Your task to perform on an android device: change the clock display to digital Image 0: 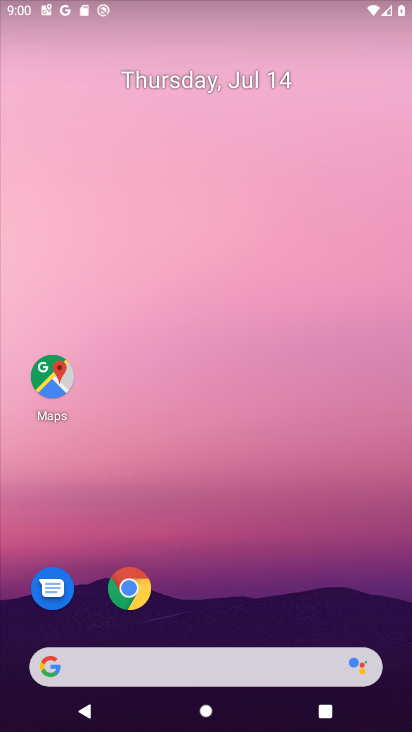
Step 0: click (134, 49)
Your task to perform on an android device: change the clock display to digital Image 1: 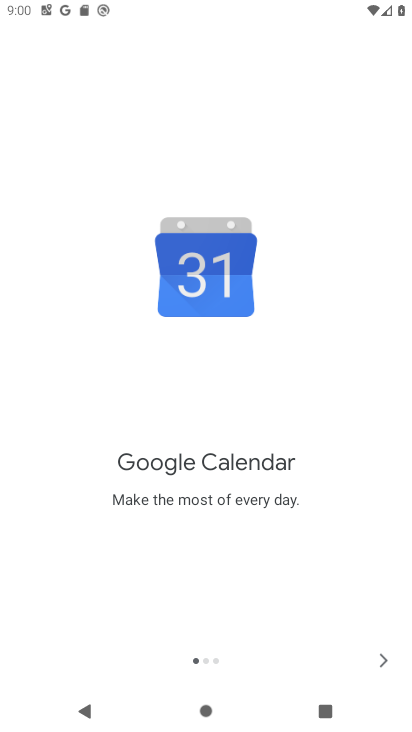
Step 1: press back button
Your task to perform on an android device: change the clock display to digital Image 2: 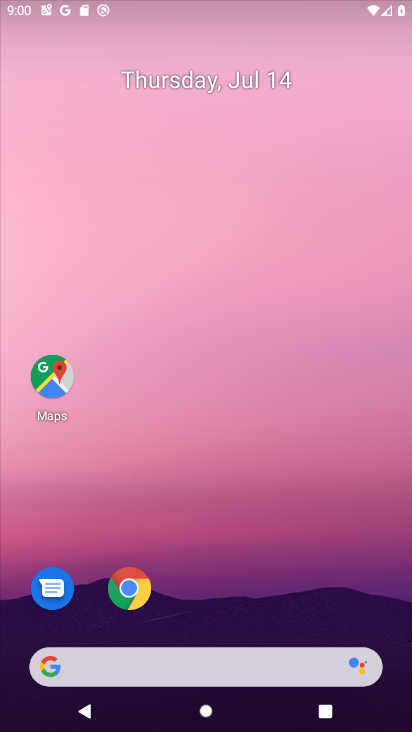
Step 2: drag from (287, 721) to (198, 78)
Your task to perform on an android device: change the clock display to digital Image 3: 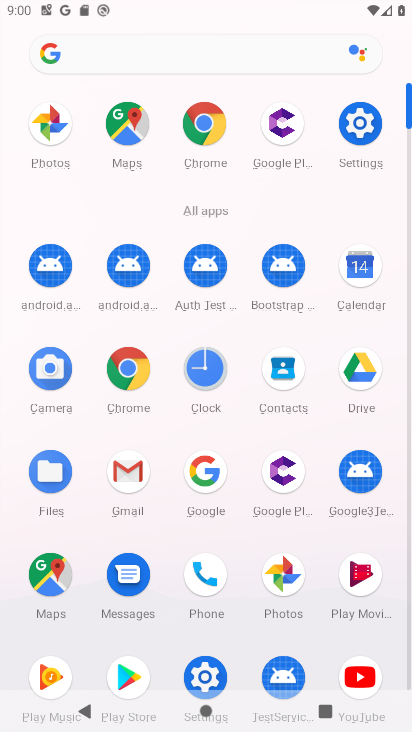
Step 3: click (209, 376)
Your task to perform on an android device: change the clock display to digital Image 4: 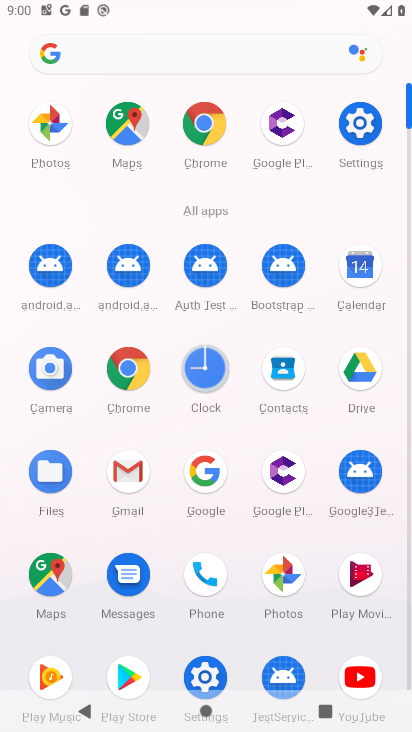
Step 4: click (204, 365)
Your task to perform on an android device: change the clock display to digital Image 5: 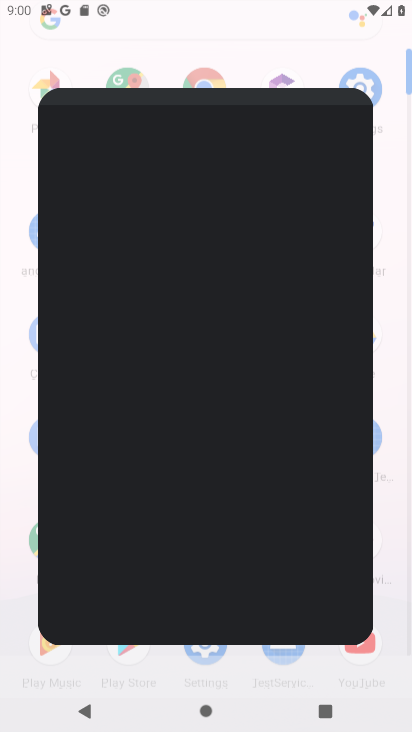
Step 5: click (208, 362)
Your task to perform on an android device: change the clock display to digital Image 6: 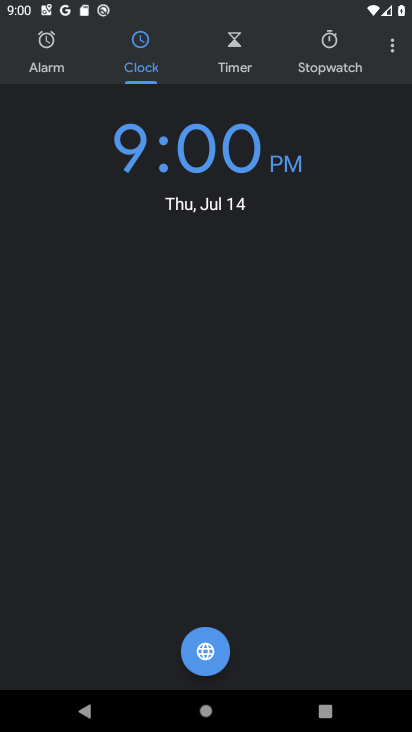
Step 6: click (387, 55)
Your task to perform on an android device: change the clock display to digital Image 7: 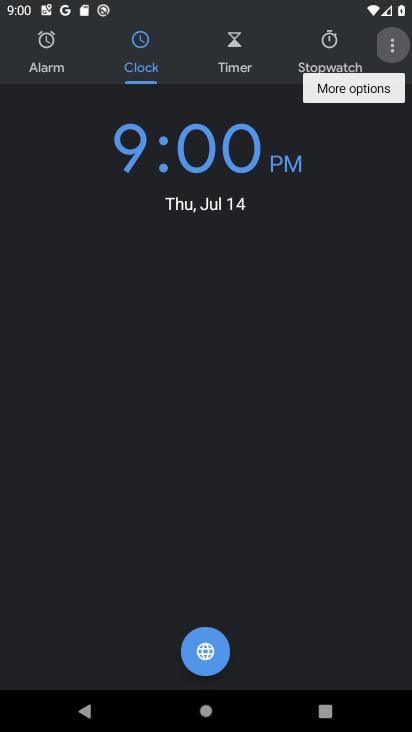
Step 7: click (384, 65)
Your task to perform on an android device: change the clock display to digital Image 8: 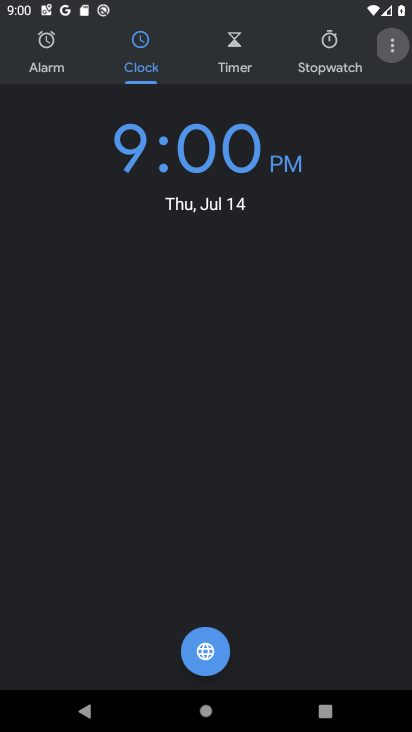
Step 8: click (384, 65)
Your task to perform on an android device: change the clock display to digital Image 9: 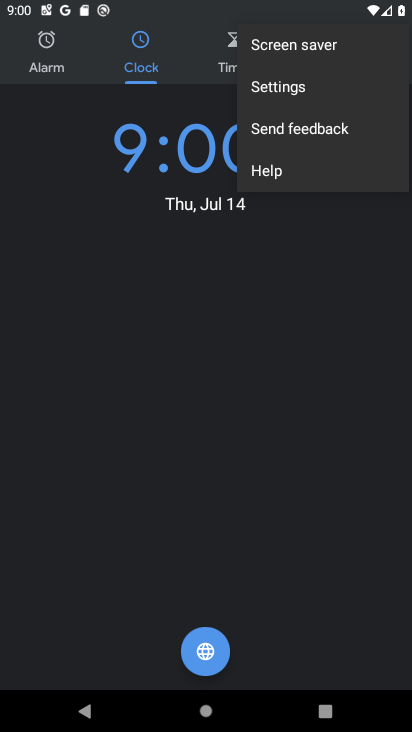
Step 9: click (396, 52)
Your task to perform on an android device: change the clock display to digital Image 10: 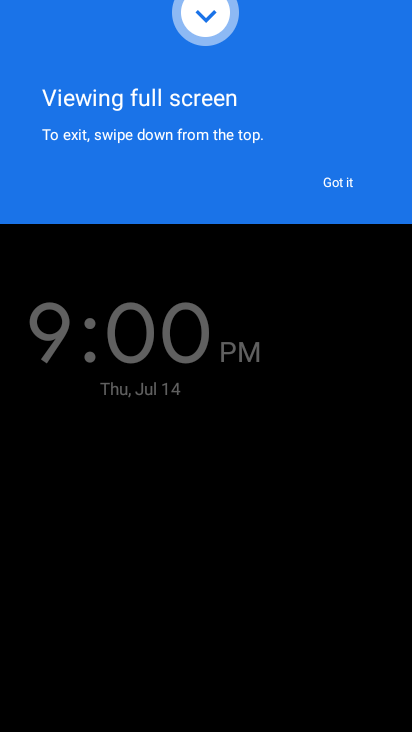
Step 10: click (342, 181)
Your task to perform on an android device: change the clock display to digital Image 11: 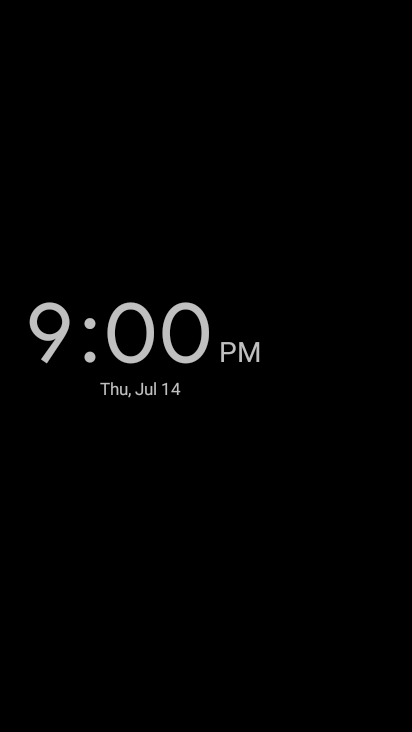
Step 11: press back button
Your task to perform on an android device: change the clock display to digital Image 12: 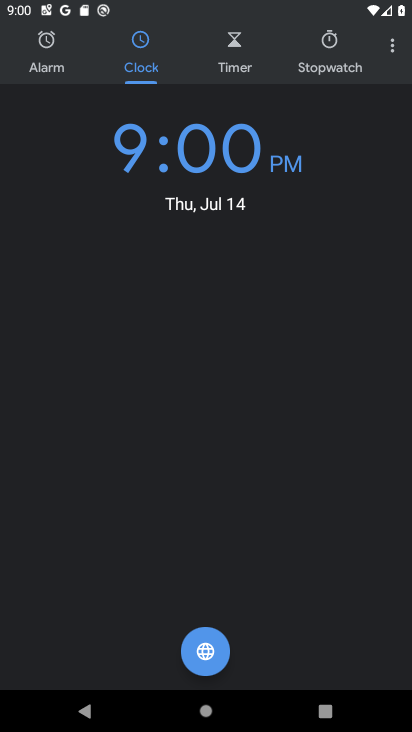
Step 12: drag from (390, 52) to (284, 94)
Your task to perform on an android device: change the clock display to digital Image 13: 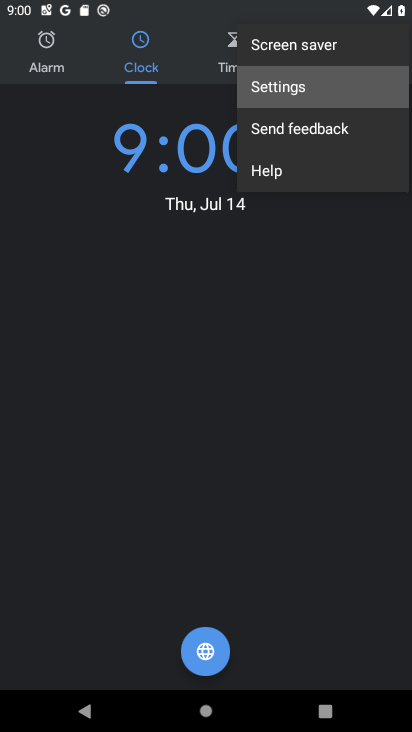
Step 13: click (284, 94)
Your task to perform on an android device: change the clock display to digital Image 14: 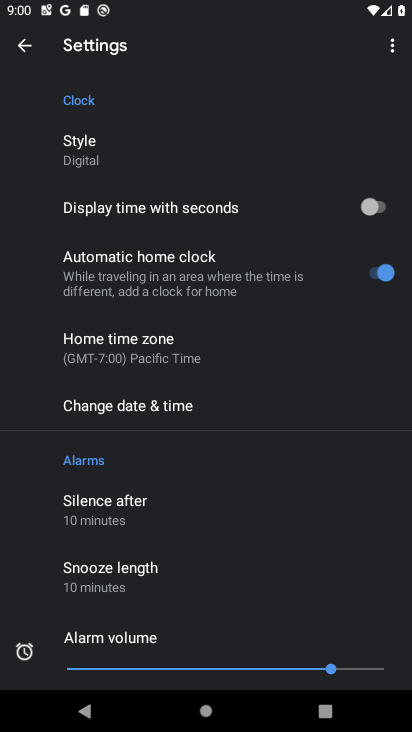
Step 14: click (364, 209)
Your task to perform on an android device: change the clock display to digital Image 15: 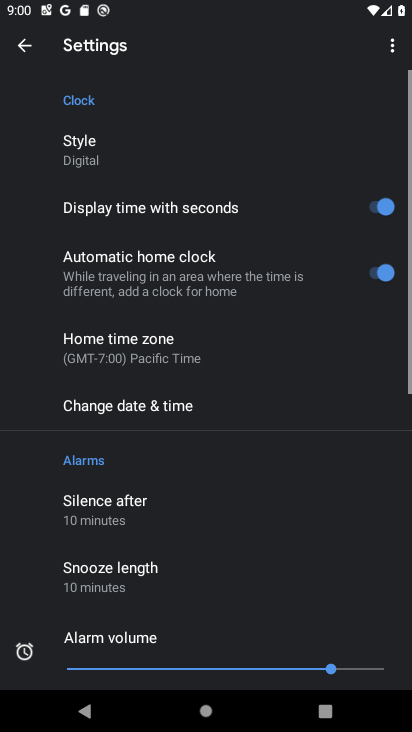
Step 15: task complete